Your task to perform on an android device: Open the phone app and click the voicemail tab. Image 0: 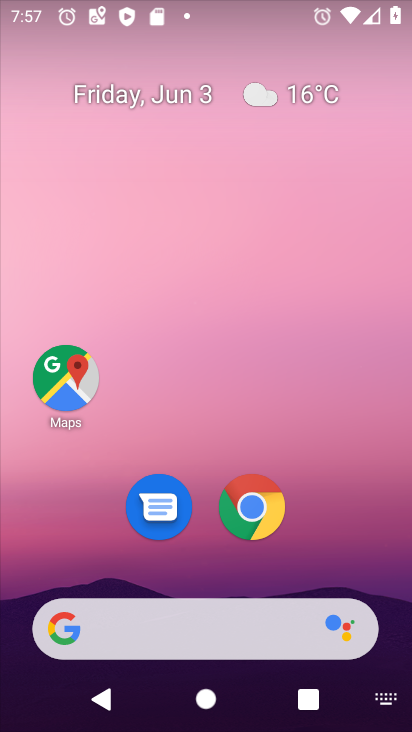
Step 0: drag from (297, 451) to (202, 84)
Your task to perform on an android device: Open the phone app and click the voicemail tab. Image 1: 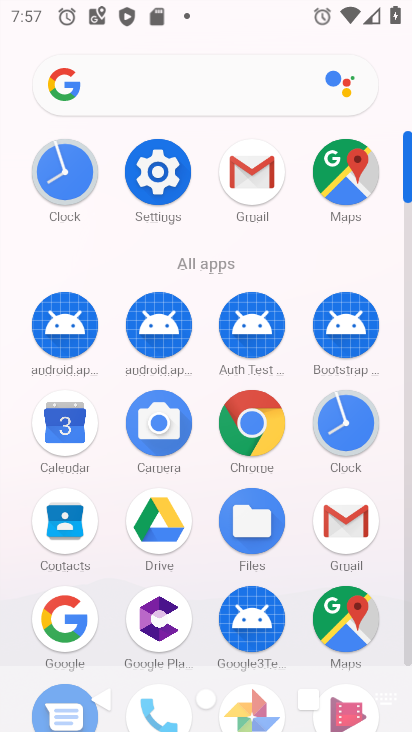
Step 1: drag from (207, 629) to (210, 263)
Your task to perform on an android device: Open the phone app and click the voicemail tab. Image 2: 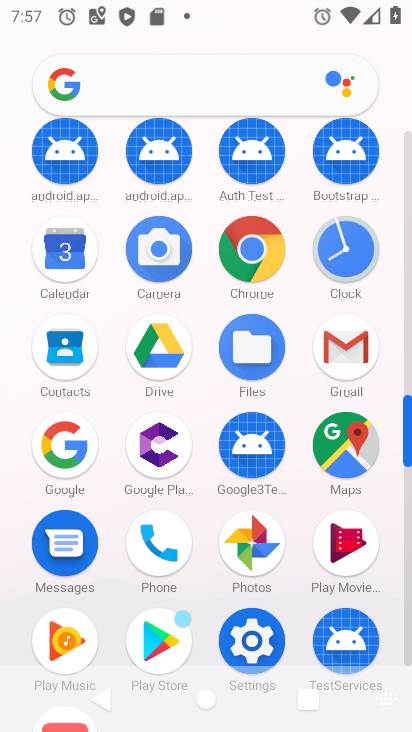
Step 2: click (168, 572)
Your task to perform on an android device: Open the phone app and click the voicemail tab. Image 3: 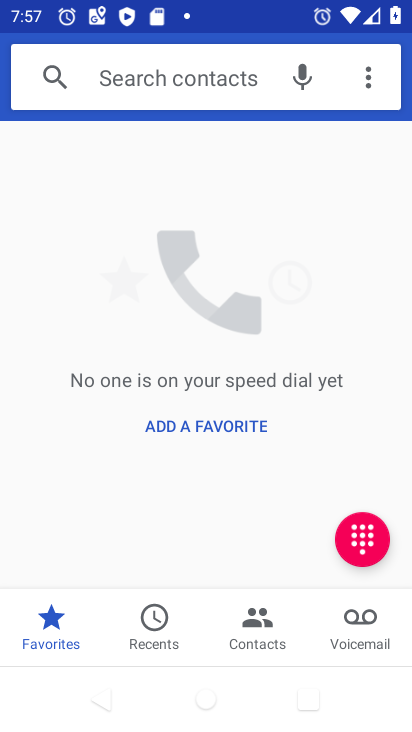
Step 3: click (361, 641)
Your task to perform on an android device: Open the phone app and click the voicemail tab. Image 4: 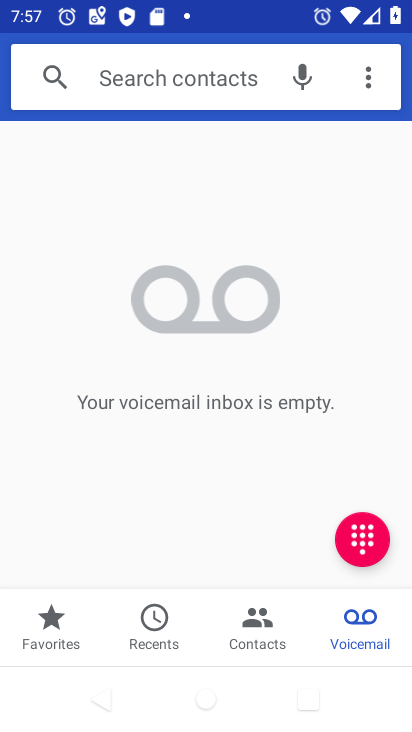
Step 4: task complete